Your task to perform on an android device: toggle javascript in the chrome app Image 0: 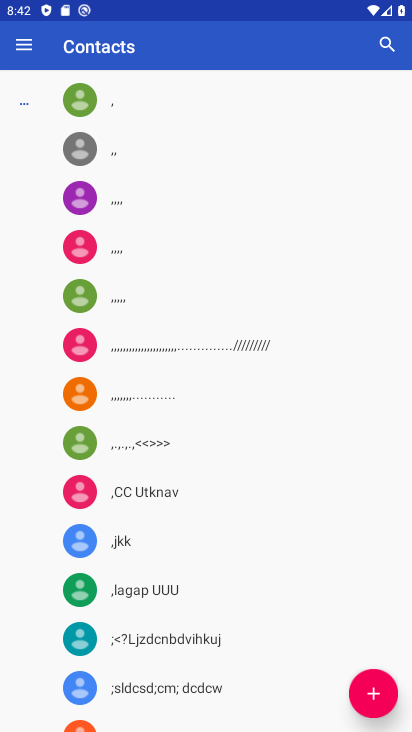
Step 0: press home button
Your task to perform on an android device: toggle javascript in the chrome app Image 1: 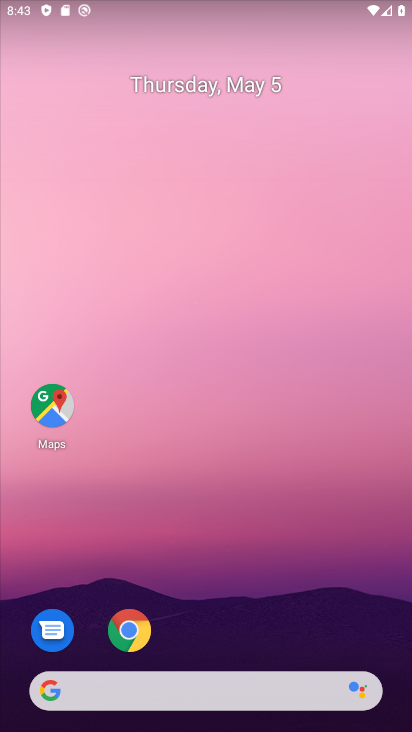
Step 1: click (107, 633)
Your task to perform on an android device: toggle javascript in the chrome app Image 2: 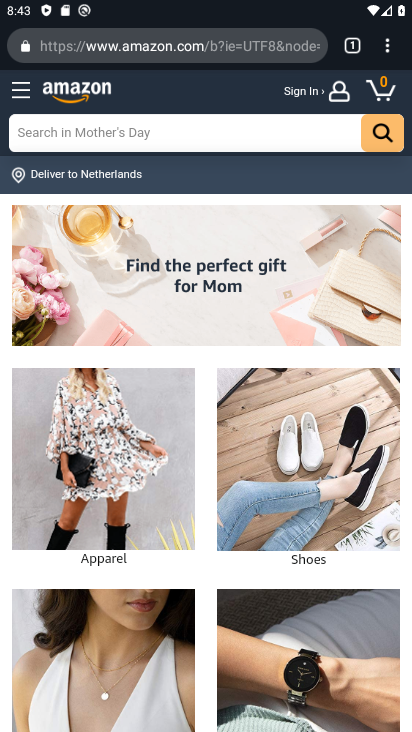
Step 2: click (386, 35)
Your task to perform on an android device: toggle javascript in the chrome app Image 3: 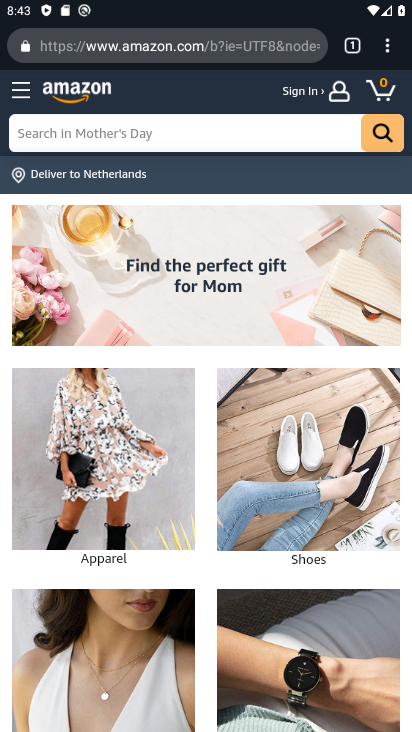
Step 3: click (388, 36)
Your task to perform on an android device: toggle javascript in the chrome app Image 4: 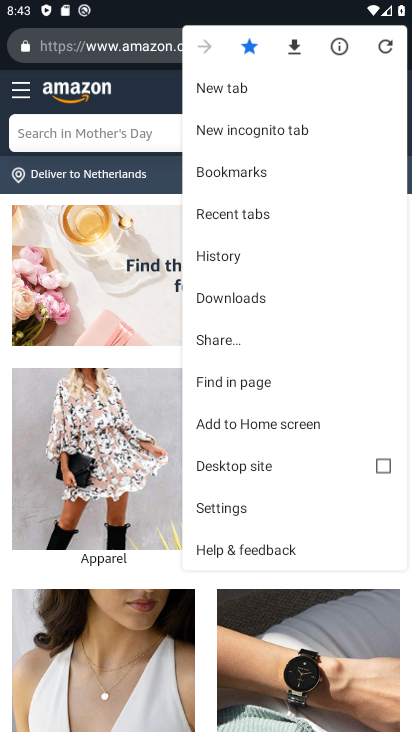
Step 4: click (228, 506)
Your task to perform on an android device: toggle javascript in the chrome app Image 5: 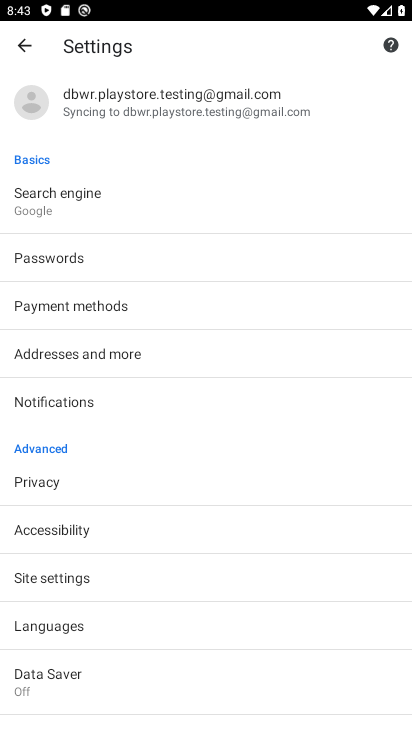
Step 5: click (95, 585)
Your task to perform on an android device: toggle javascript in the chrome app Image 6: 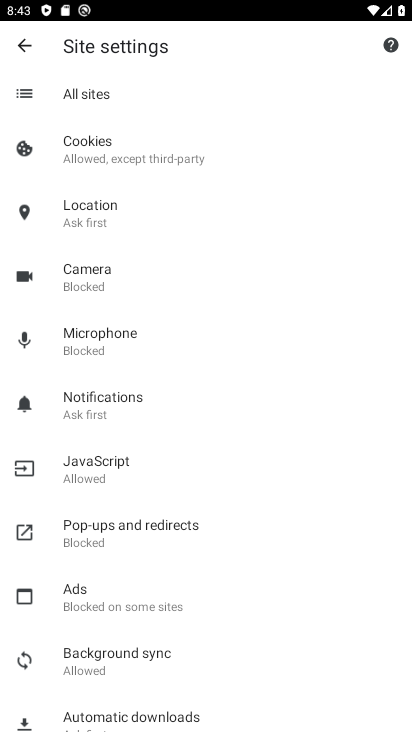
Step 6: click (99, 470)
Your task to perform on an android device: toggle javascript in the chrome app Image 7: 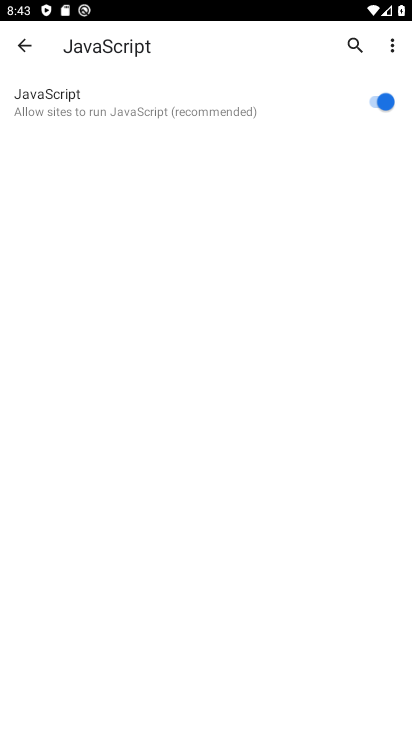
Step 7: click (371, 99)
Your task to perform on an android device: toggle javascript in the chrome app Image 8: 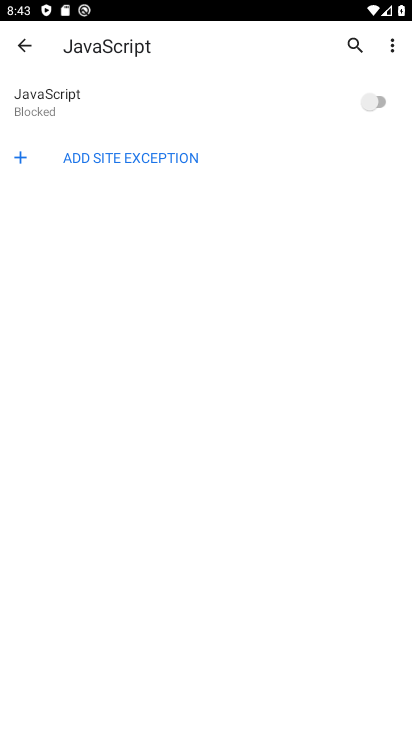
Step 8: task complete